Your task to perform on an android device: turn smart compose on in the gmail app Image 0: 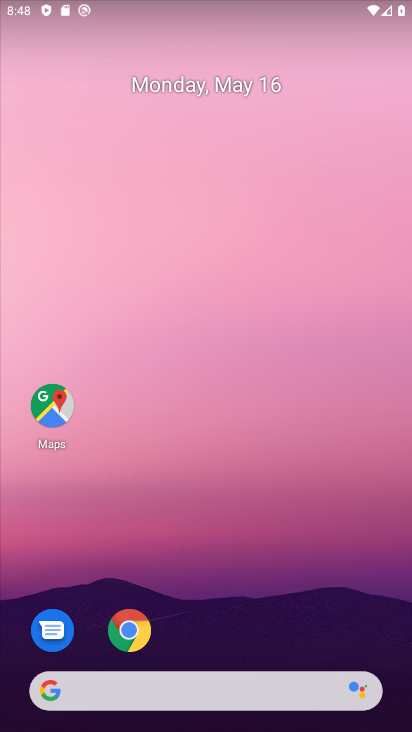
Step 0: drag from (188, 683) to (335, 147)
Your task to perform on an android device: turn smart compose on in the gmail app Image 1: 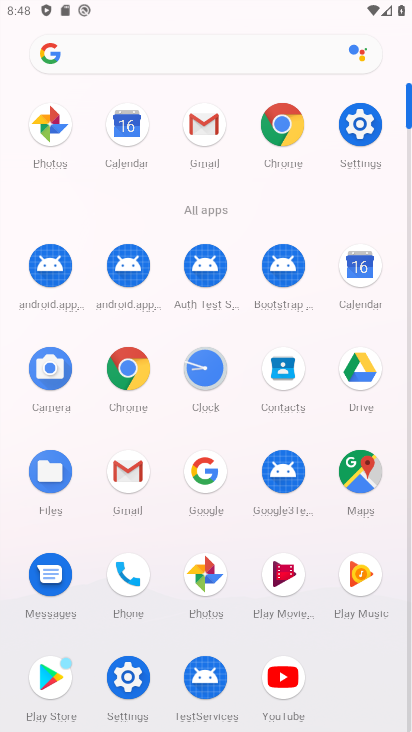
Step 1: click (128, 489)
Your task to perform on an android device: turn smart compose on in the gmail app Image 2: 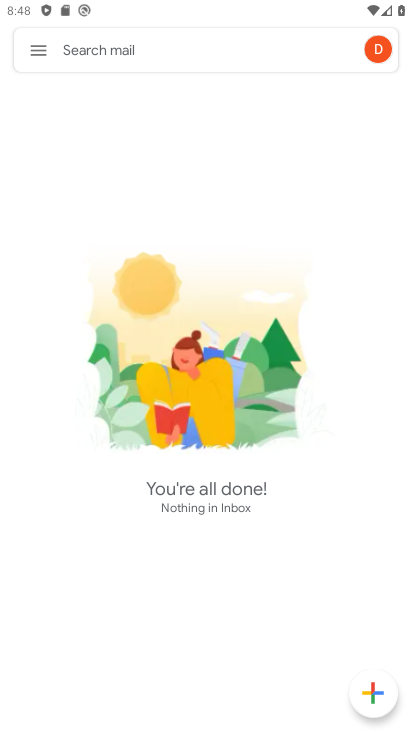
Step 2: click (39, 50)
Your task to perform on an android device: turn smart compose on in the gmail app Image 3: 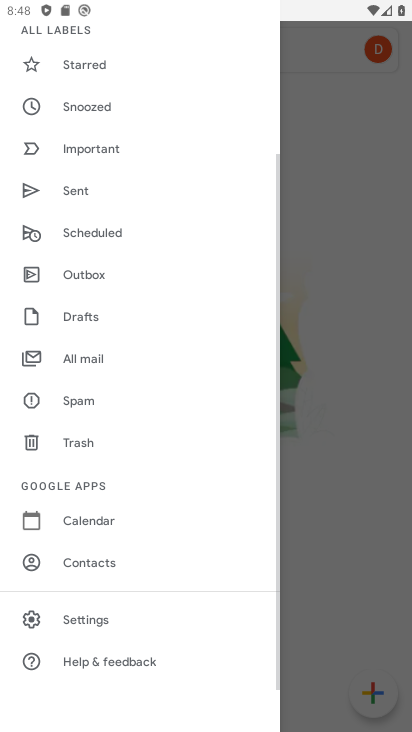
Step 3: click (118, 619)
Your task to perform on an android device: turn smart compose on in the gmail app Image 4: 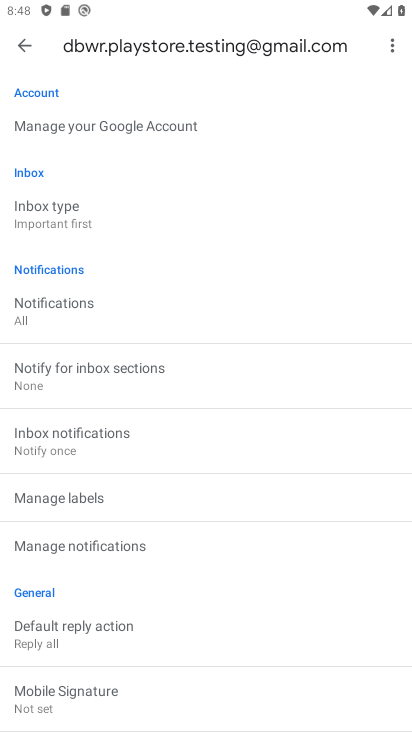
Step 4: task complete